Your task to perform on an android device: Search for vegetarian restaurants on Maps Image 0: 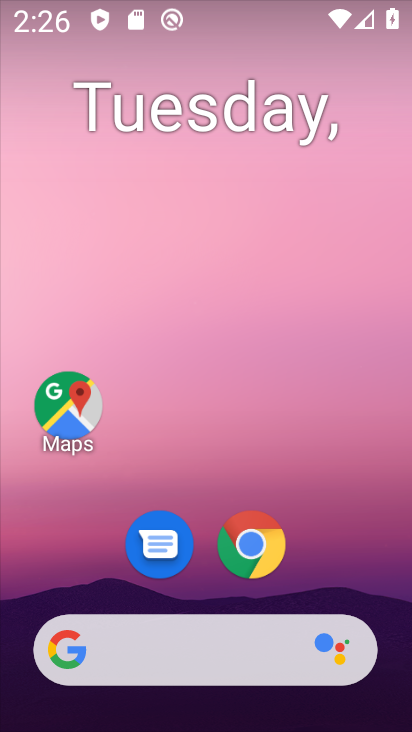
Step 0: drag from (335, 543) to (279, 2)
Your task to perform on an android device: Search for vegetarian restaurants on Maps Image 1: 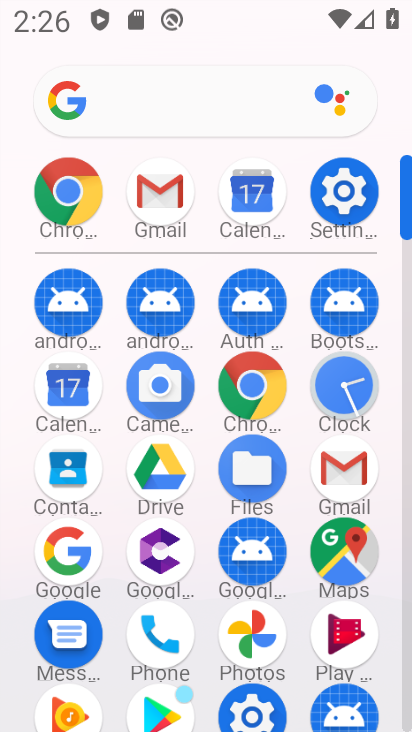
Step 1: drag from (36, 526) to (31, 271)
Your task to perform on an android device: Search for vegetarian restaurants on Maps Image 2: 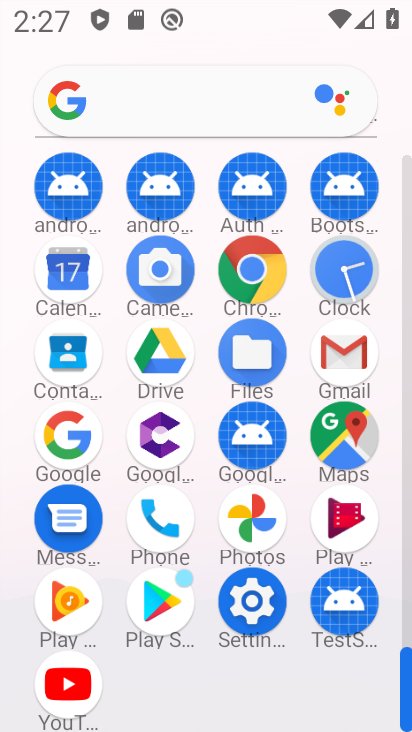
Step 2: click (339, 434)
Your task to perform on an android device: Search for vegetarian restaurants on Maps Image 3: 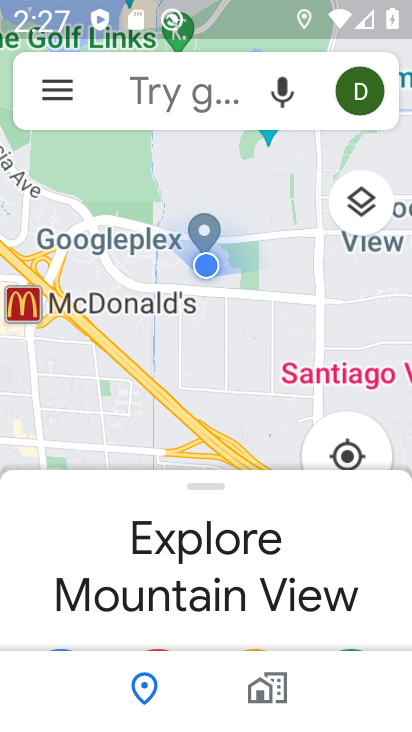
Step 3: click (196, 95)
Your task to perform on an android device: Search for vegetarian restaurants on Maps Image 4: 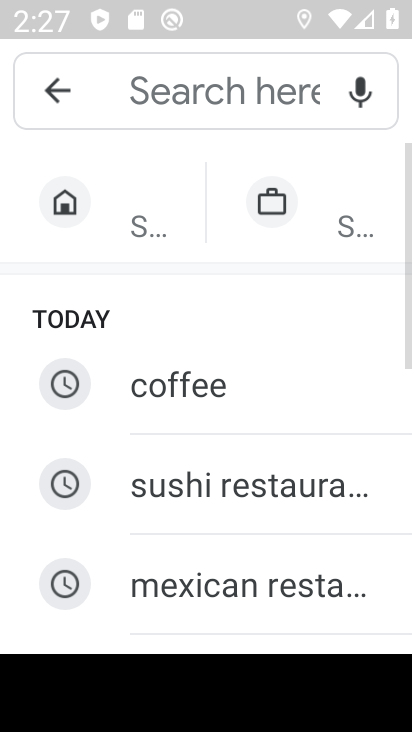
Step 4: drag from (231, 590) to (238, 324)
Your task to perform on an android device: Search for vegetarian restaurants on Maps Image 5: 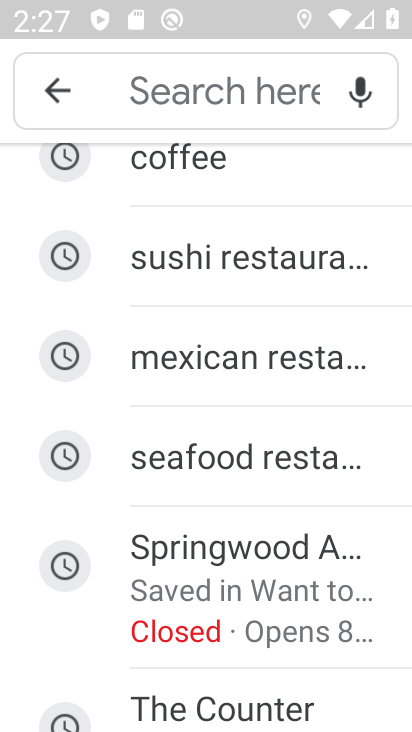
Step 5: drag from (278, 632) to (279, 276)
Your task to perform on an android device: Search for vegetarian restaurants on Maps Image 6: 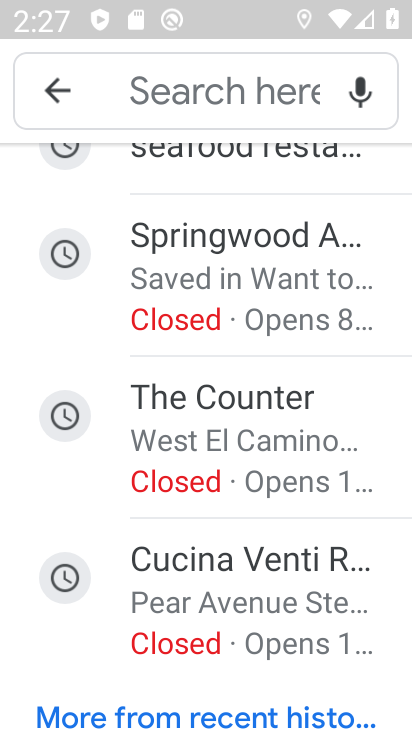
Step 6: click (149, 94)
Your task to perform on an android device: Search for vegetarian restaurants on Maps Image 7: 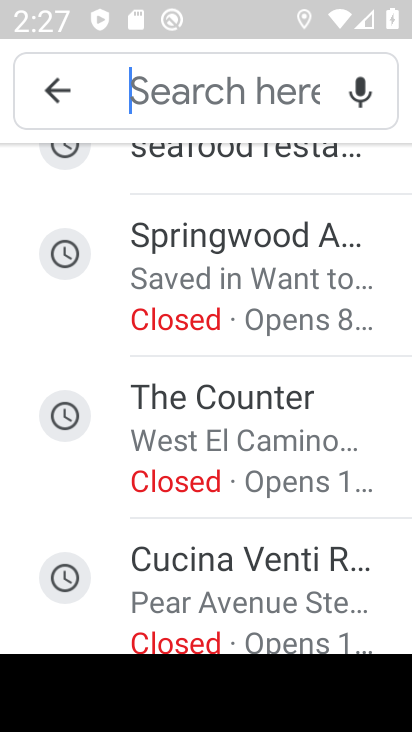
Step 7: type "vegetarian restaurants"
Your task to perform on an android device: Search for vegetarian restaurants on Maps Image 8: 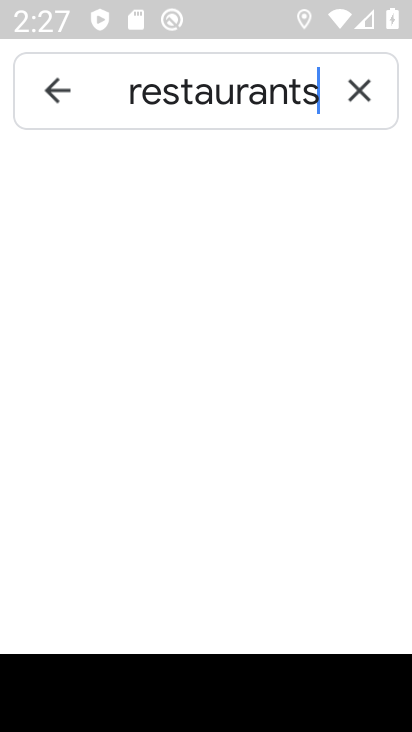
Step 8: type ""
Your task to perform on an android device: Search for vegetarian restaurants on Maps Image 9: 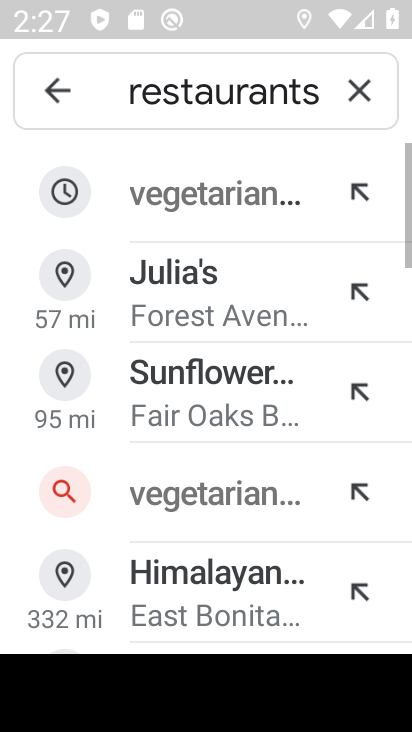
Step 9: click (220, 203)
Your task to perform on an android device: Search for vegetarian restaurants on Maps Image 10: 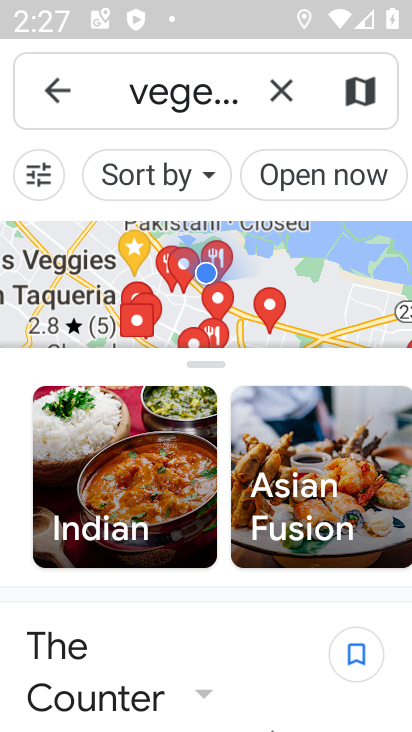
Step 10: task complete